Your task to perform on an android device: turn off translation in the chrome app Image 0: 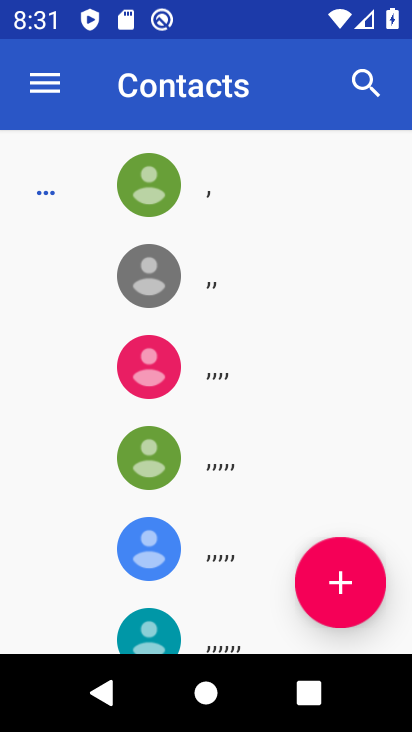
Step 0: press home button
Your task to perform on an android device: turn off translation in the chrome app Image 1: 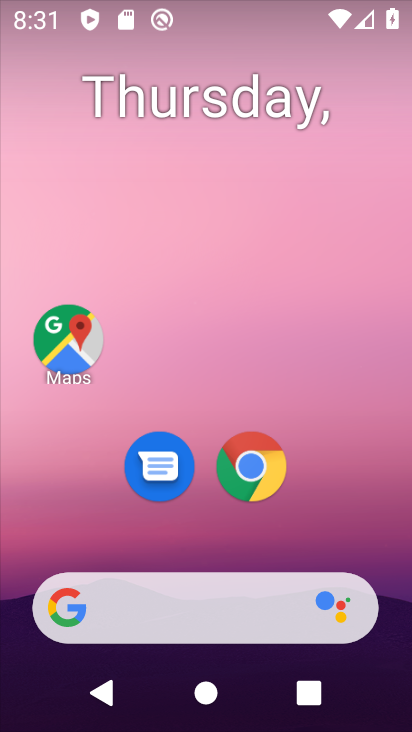
Step 1: click (255, 487)
Your task to perform on an android device: turn off translation in the chrome app Image 2: 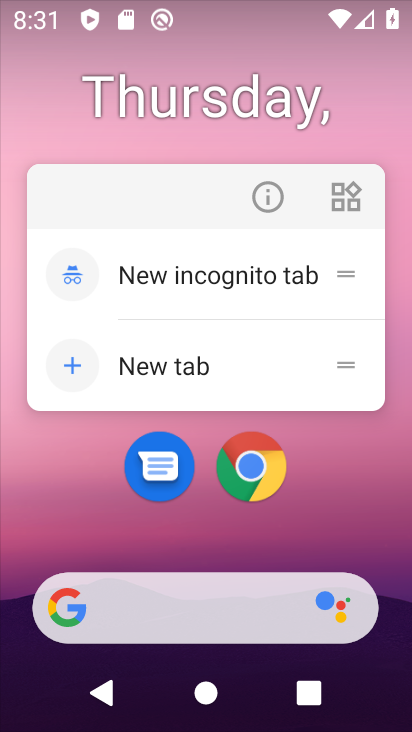
Step 2: click (255, 468)
Your task to perform on an android device: turn off translation in the chrome app Image 3: 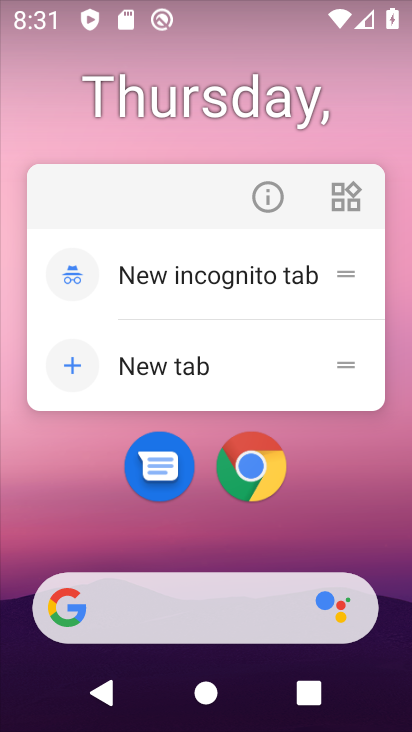
Step 3: click (252, 464)
Your task to perform on an android device: turn off translation in the chrome app Image 4: 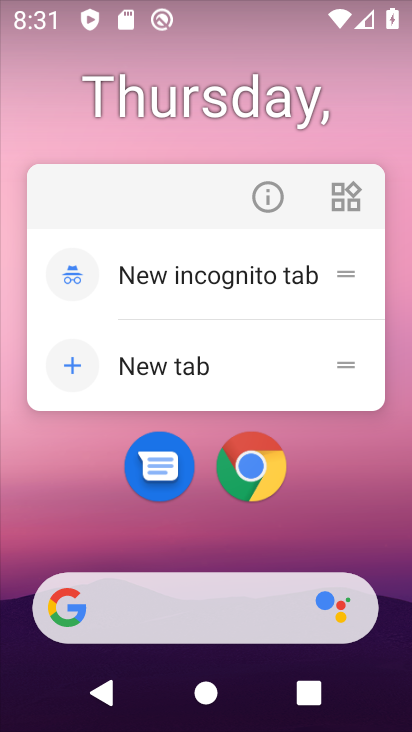
Step 4: click (239, 484)
Your task to perform on an android device: turn off translation in the chrome app Image 5: 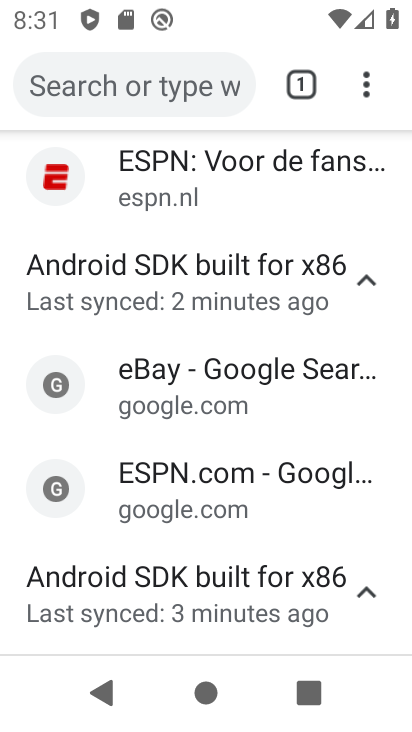
Step 5: drag from (366, 88) to (258, 527)
Your task to perform on an android device: turn off translation in the chrome app Image 6: 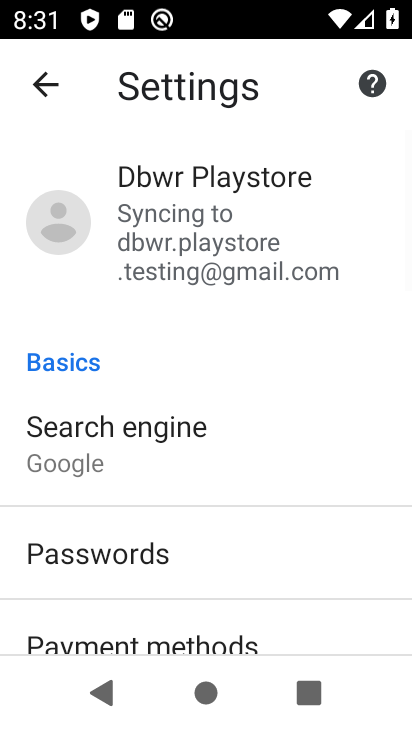
Step 6: drag from (235, 585) to (401, 196)
Your task to perform on an android device: turn off translation in the chrome app Image 7: 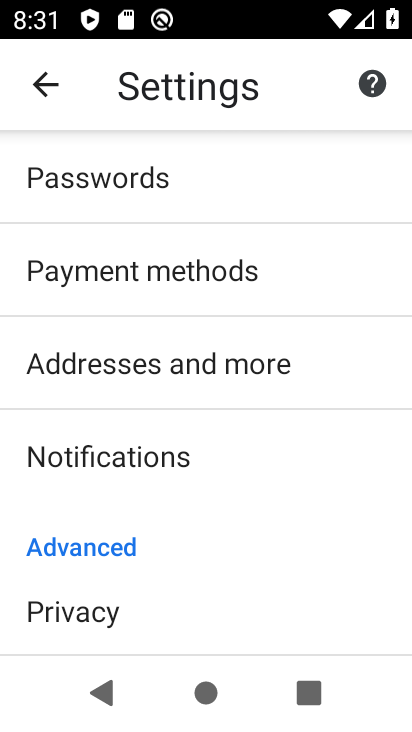
Step 7: drag from (265, 566) to (367, 141)
Your task to perform on an android device: turn off translation in the chrome app Image 8: 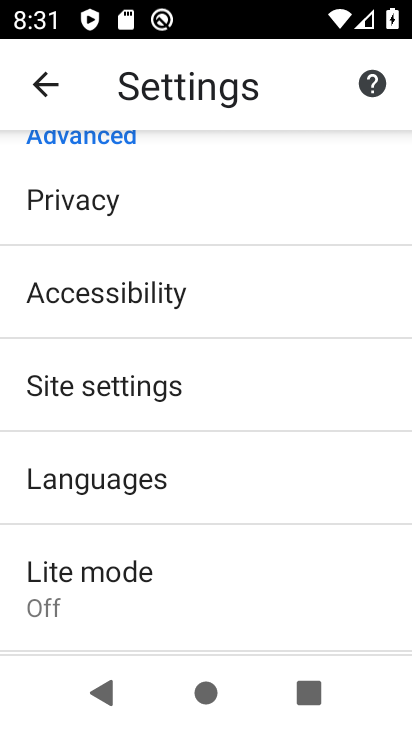
Step 8: click (144, 485)
Your task to perform on an android device: turn off translation in the chrome app Image 9: 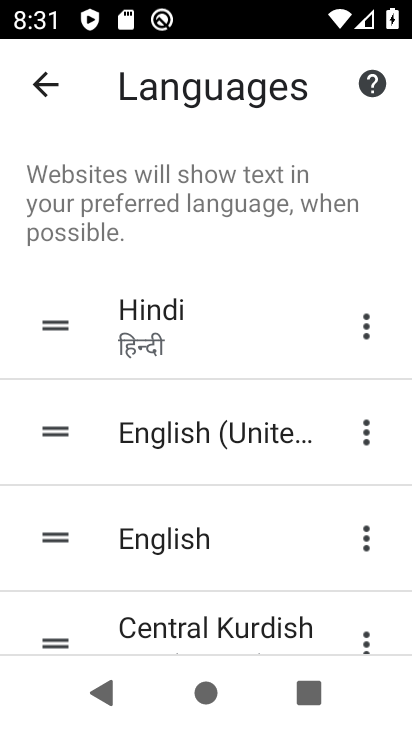
Step 9: task complete